Your task to perform on an android device: open device folders in google photos Image 0: 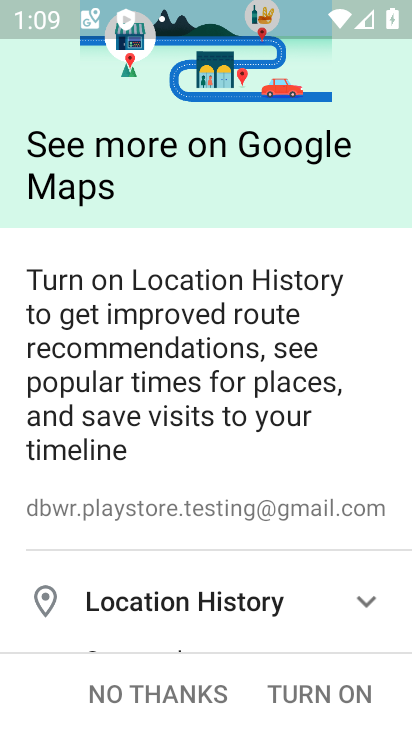
Step 0: press home button
Your task to perform on an android device: open device folders in google photos Image 1: 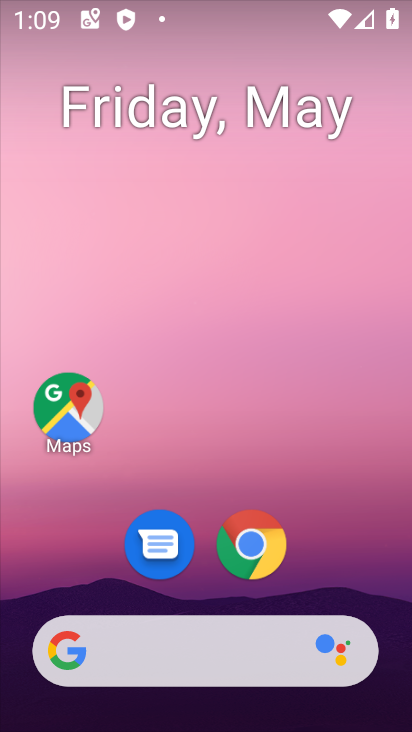
Step 1: drag from (16, 664) to (189, 302)
Your task to perform on an android device: open device folders in google photos Image 2: 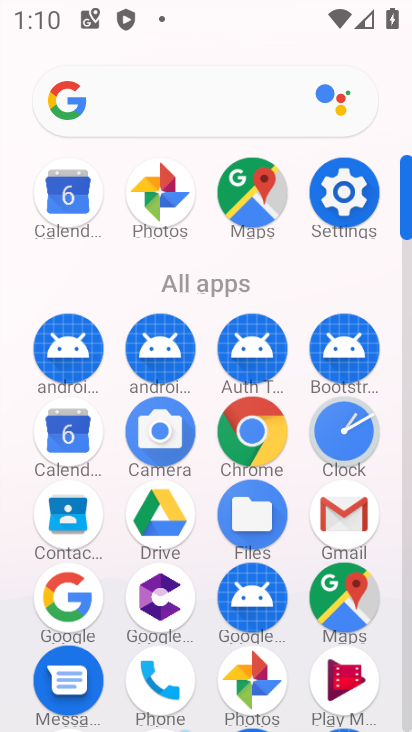
Step 2: click (259, 673)
Your task to perform on an android device: open device folders in google photos Image 3: 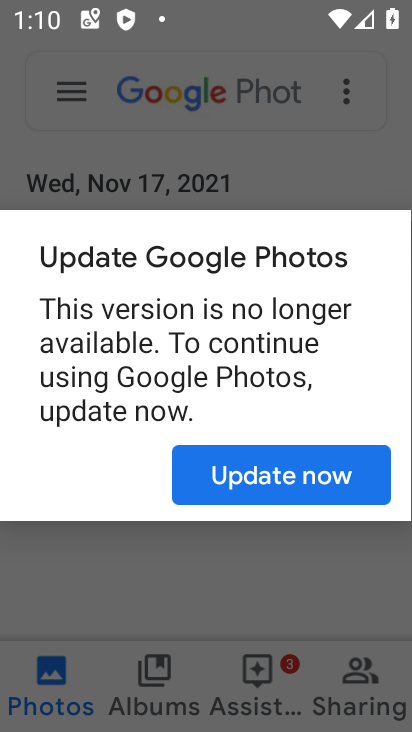
Step 3: click (206, 528)
Your task to perform on an android device: open device folders in google photos Image 4: 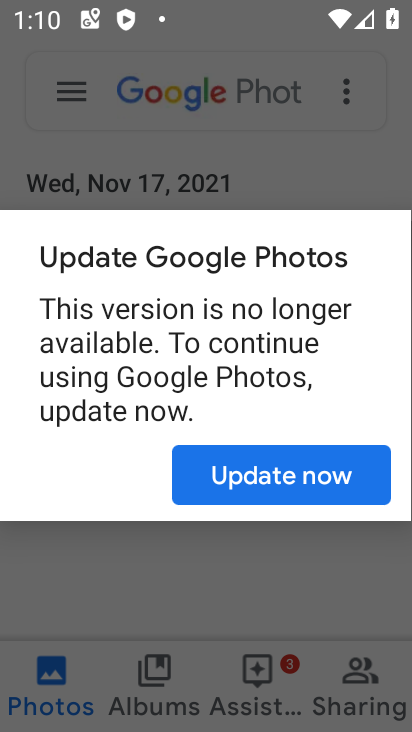
Step 4: click (198, 533)
Your task to perform on an android device: open device folders in google photos Image 5: 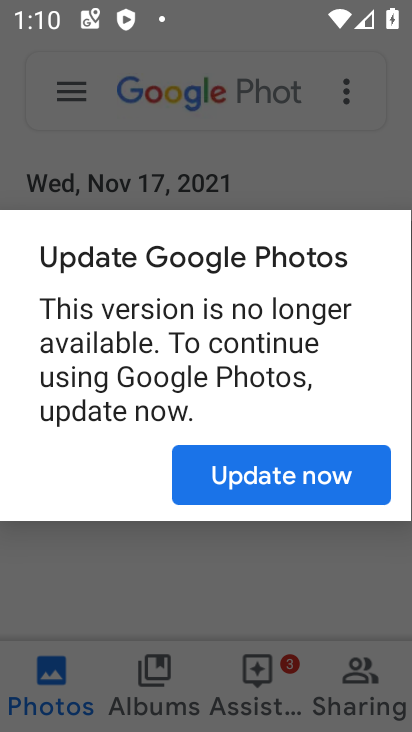
Step 5: press back button
Your task to perform on an android device: open device folders in google photos Image 6: 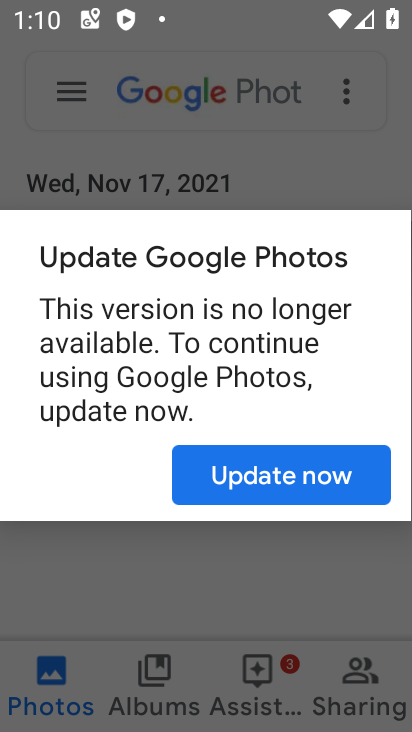
Step 6: press back button
Your task to perform on an android device: open device folders in google photos Image 7: 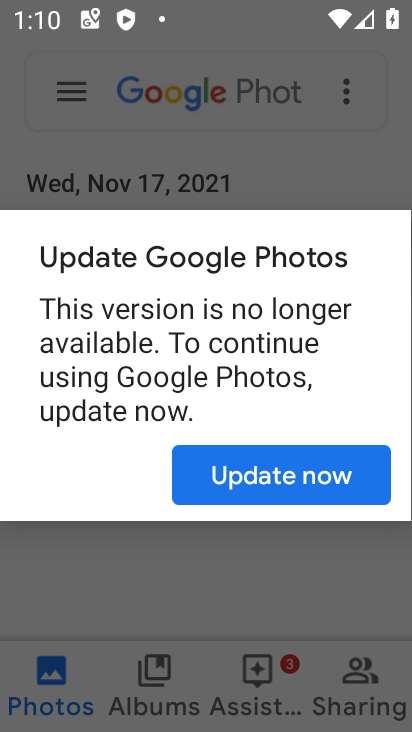
Step 7: press home button
Your task to perform on an android device: open device folders in google photos Image 8: 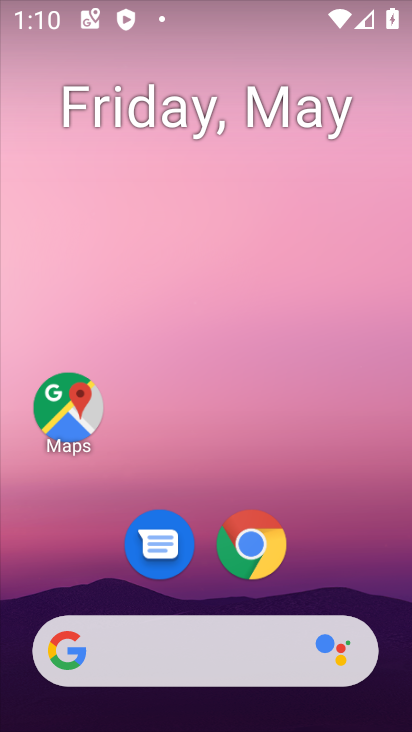
Step 8: drag from (10, 682) to (236, 231)
Your task to perform on an android device: open device folders in google photos Image 9: 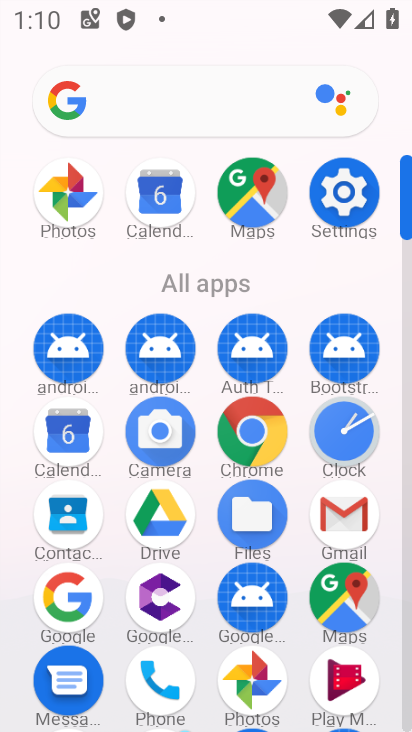
Step 9: click (59, 201)
Your task to perform on an android device: open device folders in google photos Image 10: 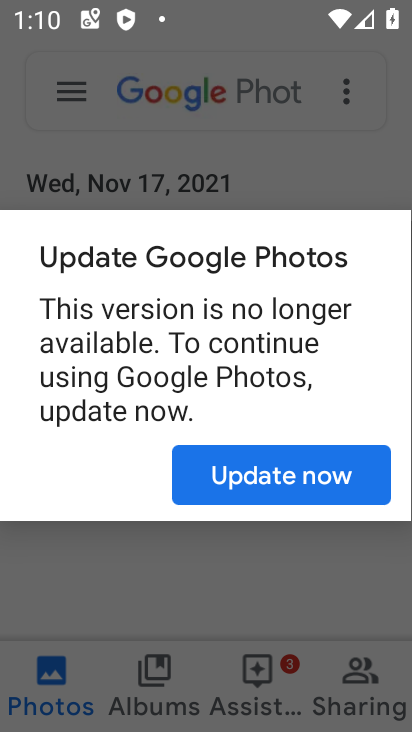
Step 10: click (226, 466)
Your task to perform on an android device: open device folders in google photos Image 11: 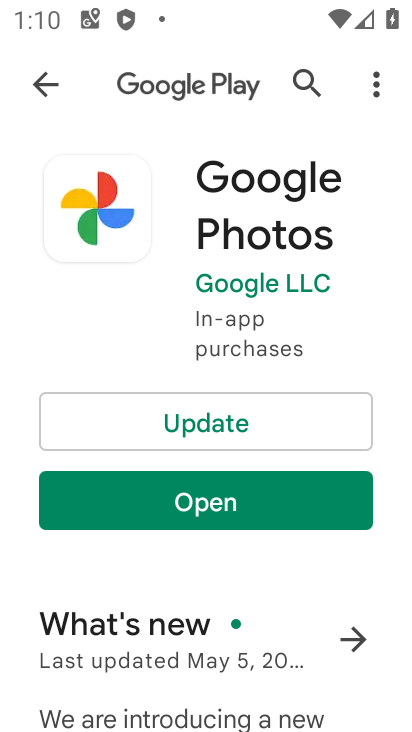
Step 11: click (203, 502)
Your task to perform on an android device: open device folders in google photos Image 12: 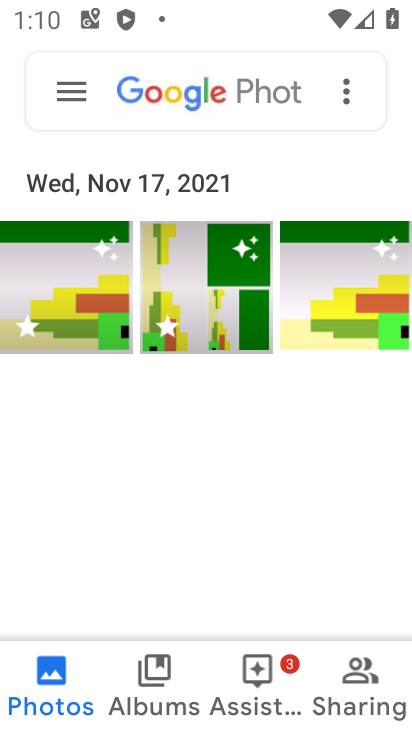
Step 12: click (63, 95)
Your task to perform on an android device: open device folders in google photos Image 13: 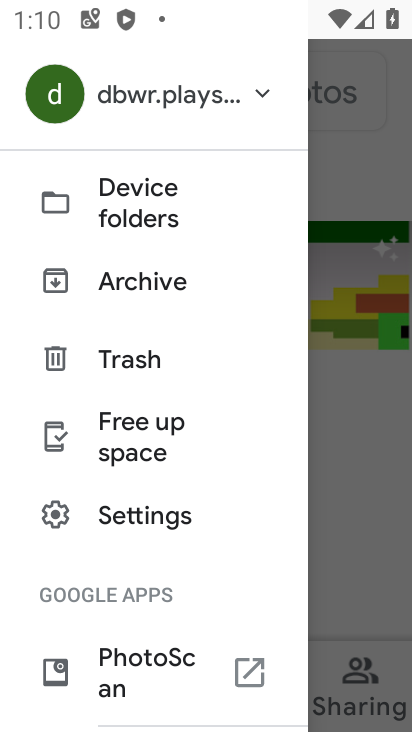
Step 13: click (98, 222)
Your task to perform on an android device: open device folders in google photos Image 14: 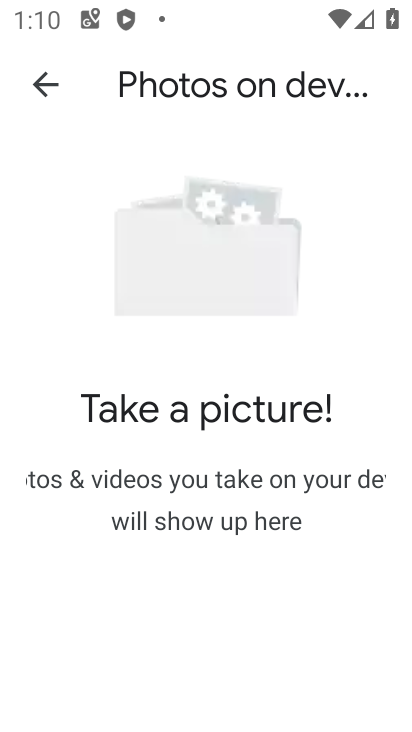
Step 14: task complete